Your task to perform on an android device: turn smart compose on in the gmail app Image 0: 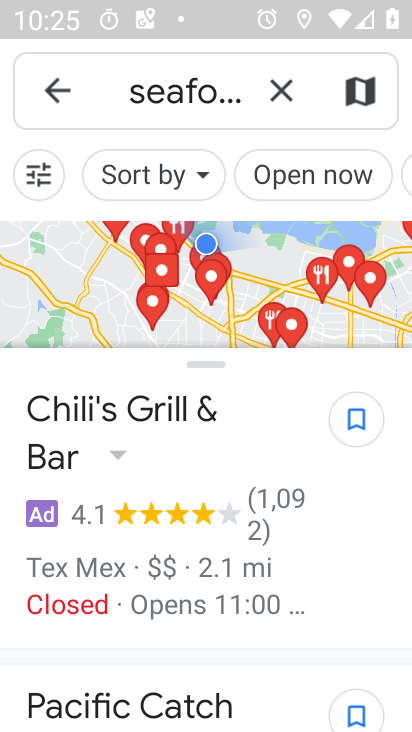
Step 0: click (50, 93)
Your task to perform on an android device: turn smart compose on in the gmail app Image 1: 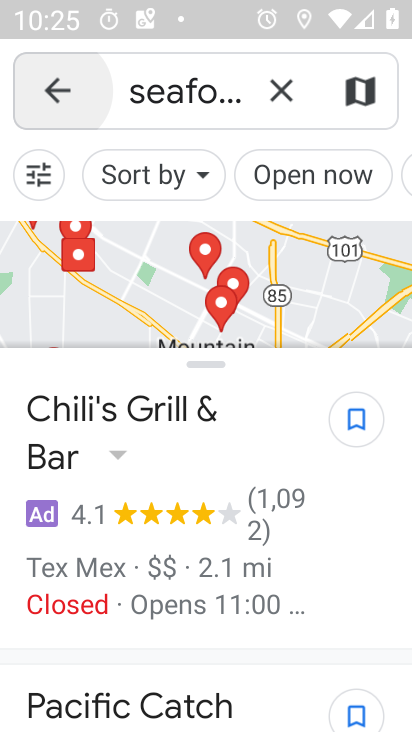
Step 1: press home button
Your task to perform on an android device: turn smart compose on in the gmail app Image 2: 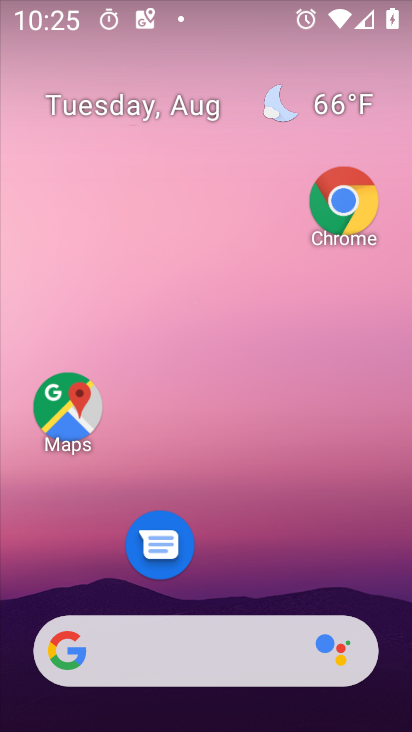
Step 2: drag from (223, 588) to (333, 0)
Your task to perform on an android device: turn smart compose on in the gmail app Image 3: 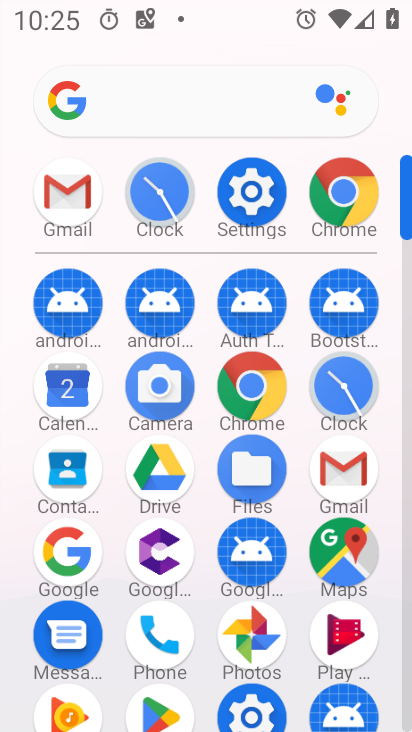
Step 3: click (349, 468)
Your task to perform on an android device: turn smart compose on in the gmail app Image 4: 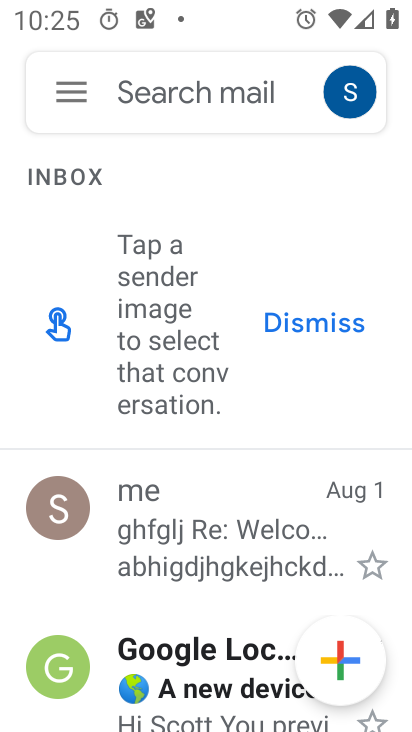
Step 4: click (84, 101)
Your task to perform on an android device: turn smart compose on in the gmail app Image 5: 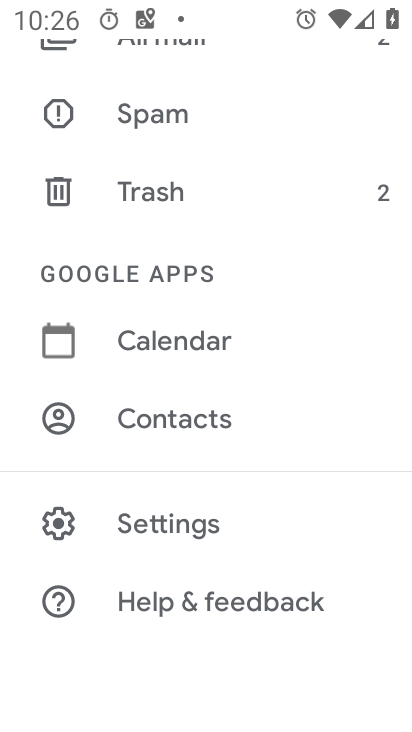
Step 5: click (192, 520)
Your task to perform on an android device: turn smart compose on in the gmail app Image 6: 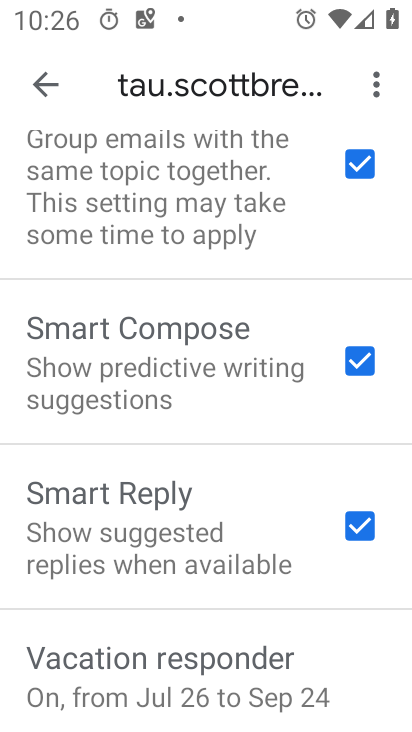
Step 6: task complete